Your task to perform on an android device: Go to sound settings Image 0: 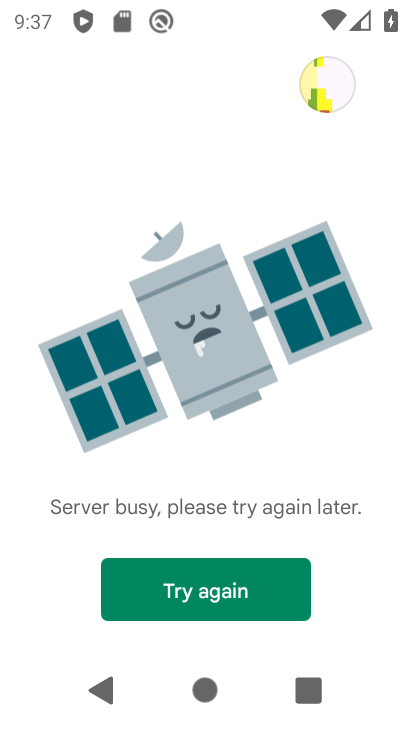
Step 0: press home button
Your task to perform on an android device: Go to sound settings Image 1: 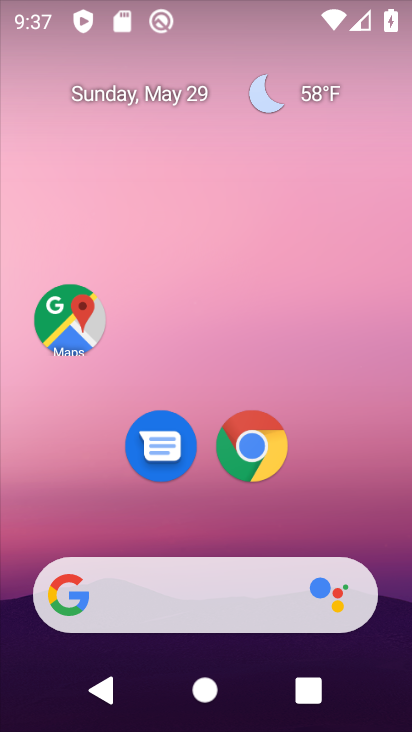
Step 1: drag from (221, 561) to (269, 159)
Your task to perform on an android device: Go to sound settings Image 2: 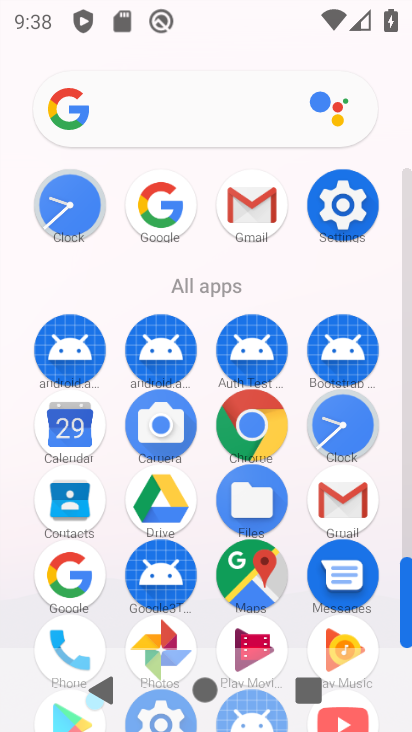
Step 2: click (349, 216)
Your task to perform on an android device: Go to sound settings Image 3: 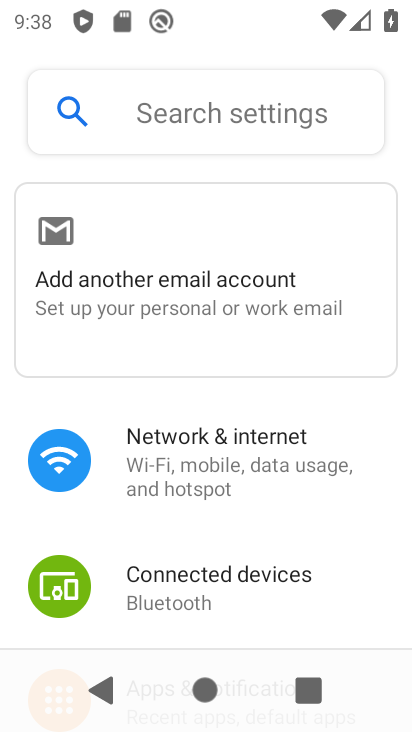
Step 3: drag from (192, 635) to (229, 189)
Your task to perform on an android device: Go to sound settings Image 4: 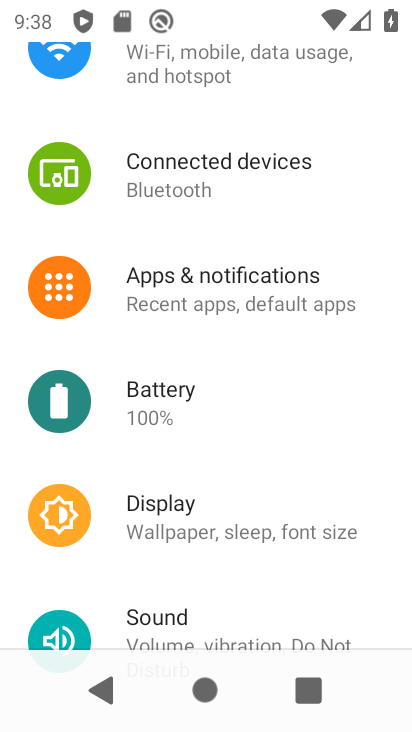
Step 4: click (139, 617)
Your task to perform on an android device: Go to sound settings Image 5: 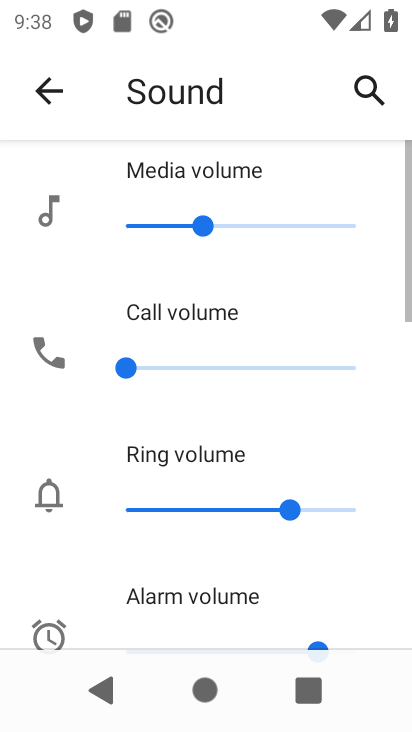
Step 5: task complete